Your task to perform on an android device: Go to calendar. Show me events next week Image 0: 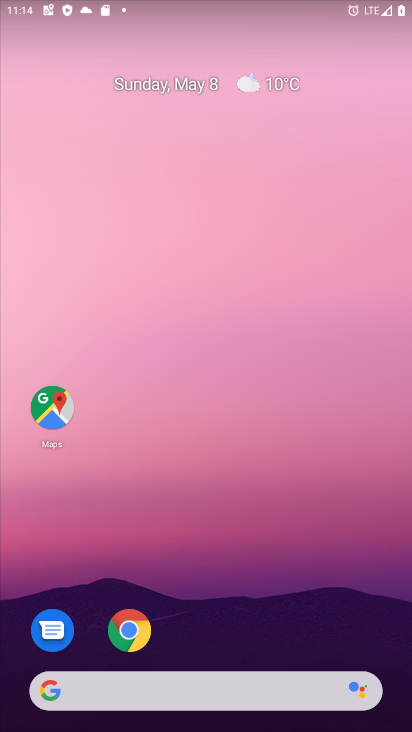
Step 0: drag from (392, 639) to (299, 87)
Your task to perform on an android device: Go to calendar. Show me events next week Image 1: 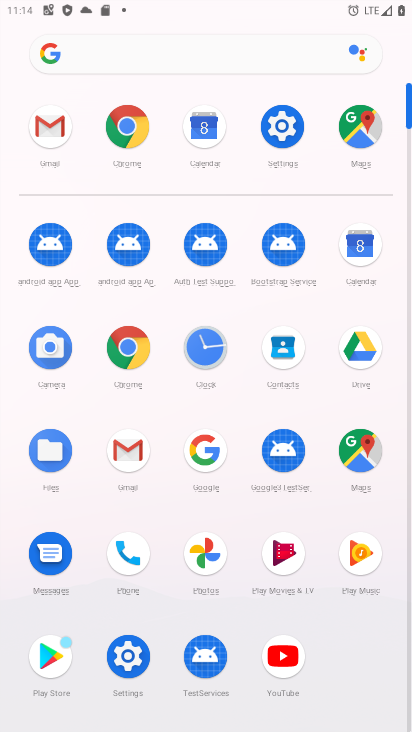
Step 1: click (363, 258)
Your task to perform on an android device: Go to calendar. Show me events next week Image 2: 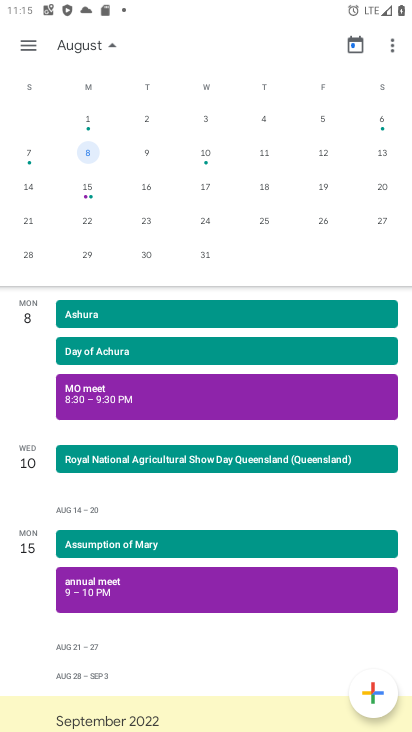
Step 2: click (84, 184)
Your task to perform on an android device: Go to calendar. Show me events next week Image 3: 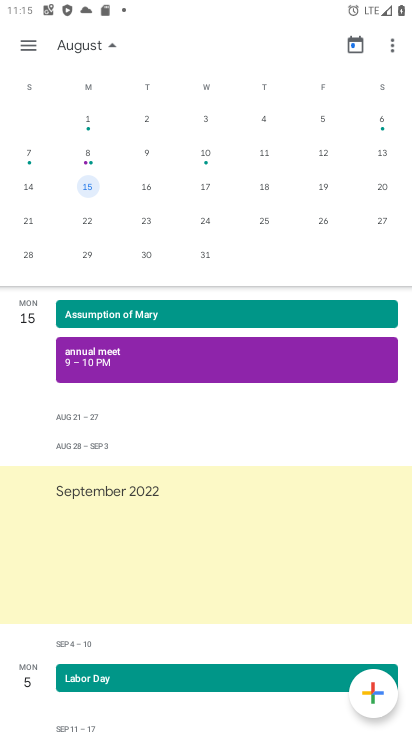
Step 3: task complete